Your task to perform on an android device: change the clock display to show seconds Image 0: 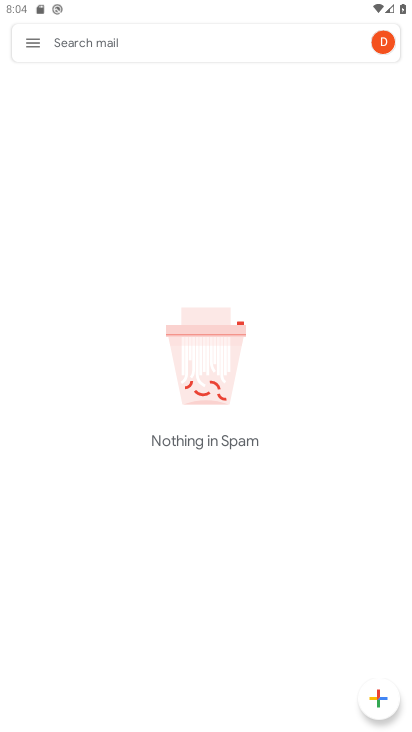
Step 0: drag from (240, 656) to (268, 473)
Your task to perform on an android device: change the clock display to show seconds Image 1: 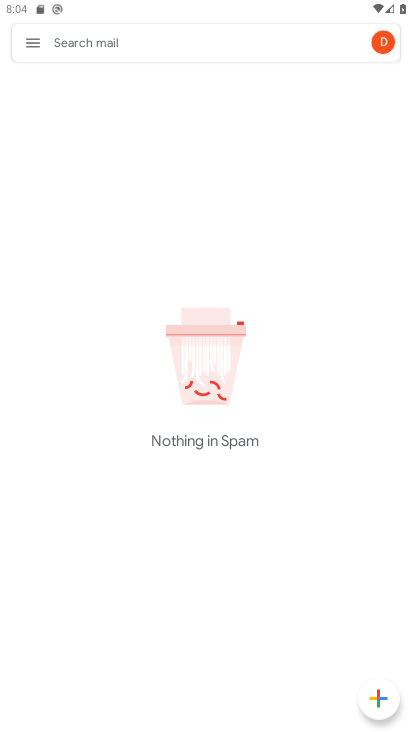
Step 1: press home button
Your task to perform on an android device: change the clock display to show seconds Image 2: 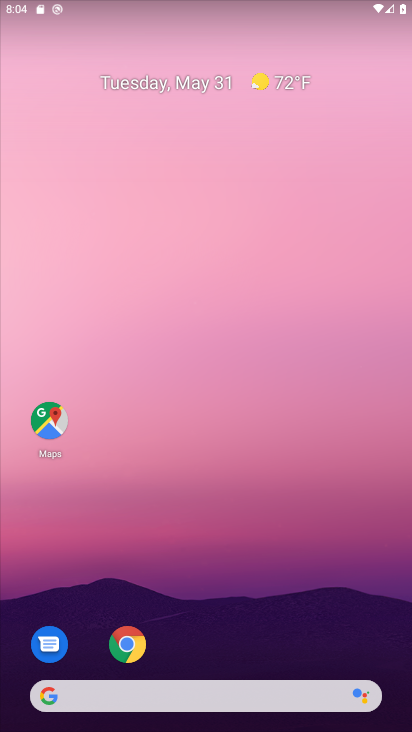
Step 2: drag from (197, 660) to (192, 231)
Your task to perform on an android device: change the clock display to show seconds Image 3: 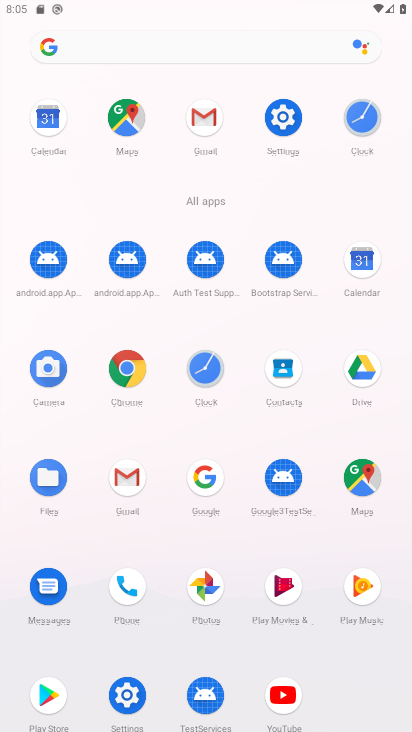
Step 3: click (207, 365)
Your task to perform on an android device: change the clock display to show seconds Image 4: 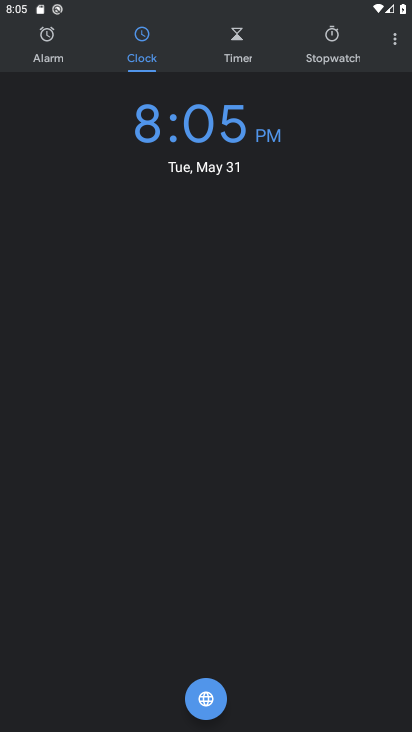
Step 4: click (393, 34)
Your task to perform on an android device: change the clock display to show seconds Image 5: 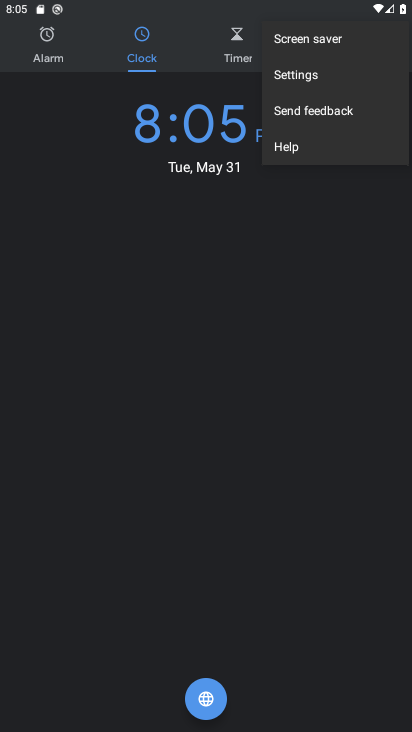
Step 5: click (325, 72)
Your task to perform on an android device: change the clock display to show seconds Image 6: 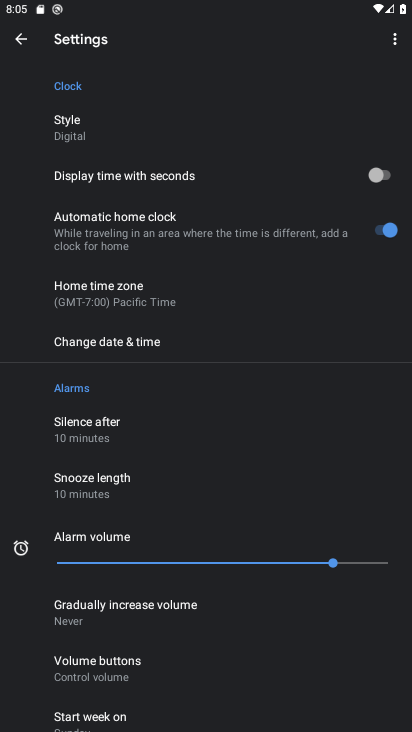
Step 6: click (389, 174)
Your task to perform on an android device: change the clock display to show seconds Image 7: 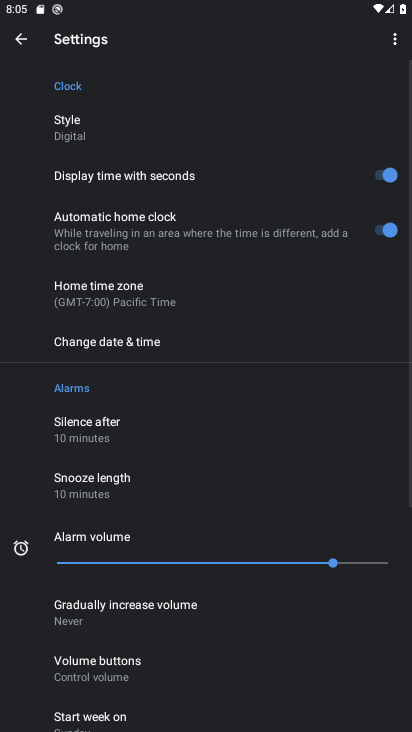
Step 7: task complete